Your task to perform on an android device: read, delete, or share a saved page in the chrome app Image 0: 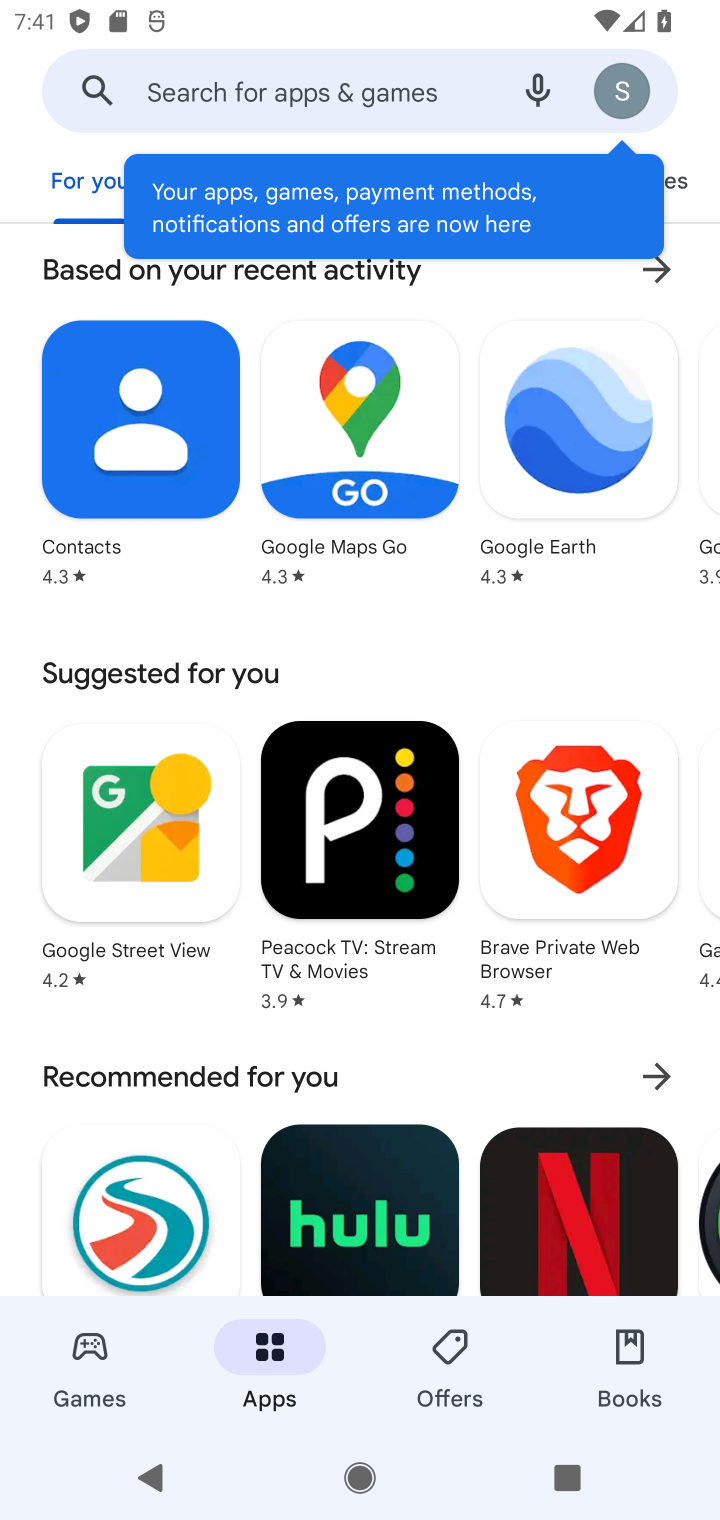
Step 0: press home button
Your task to perform on an android device: read, delete, or share a saved page in the chrome app Image 1: 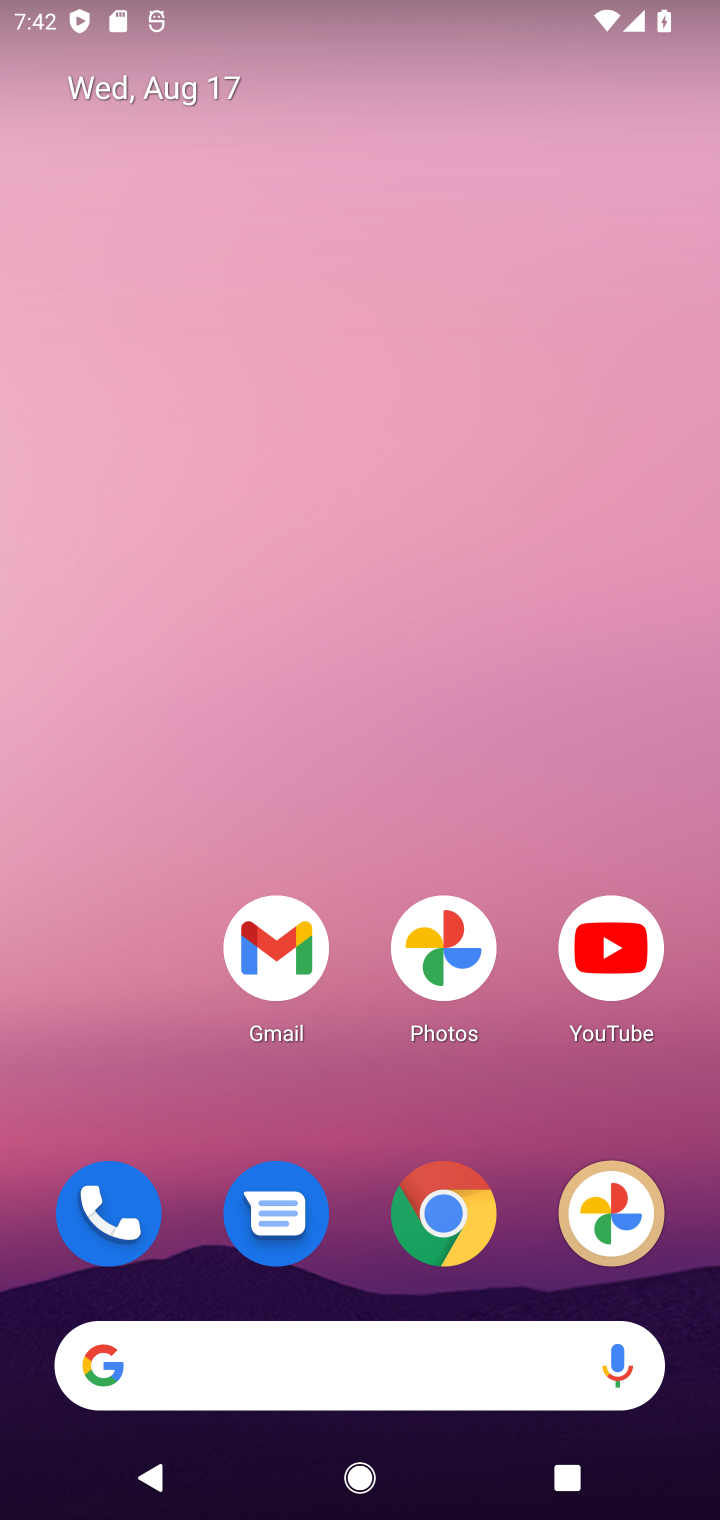
Step 1: click (445, 1261)
Your task to perform on an android device: read, delete, or share a saved page in the chrome app Image 2: 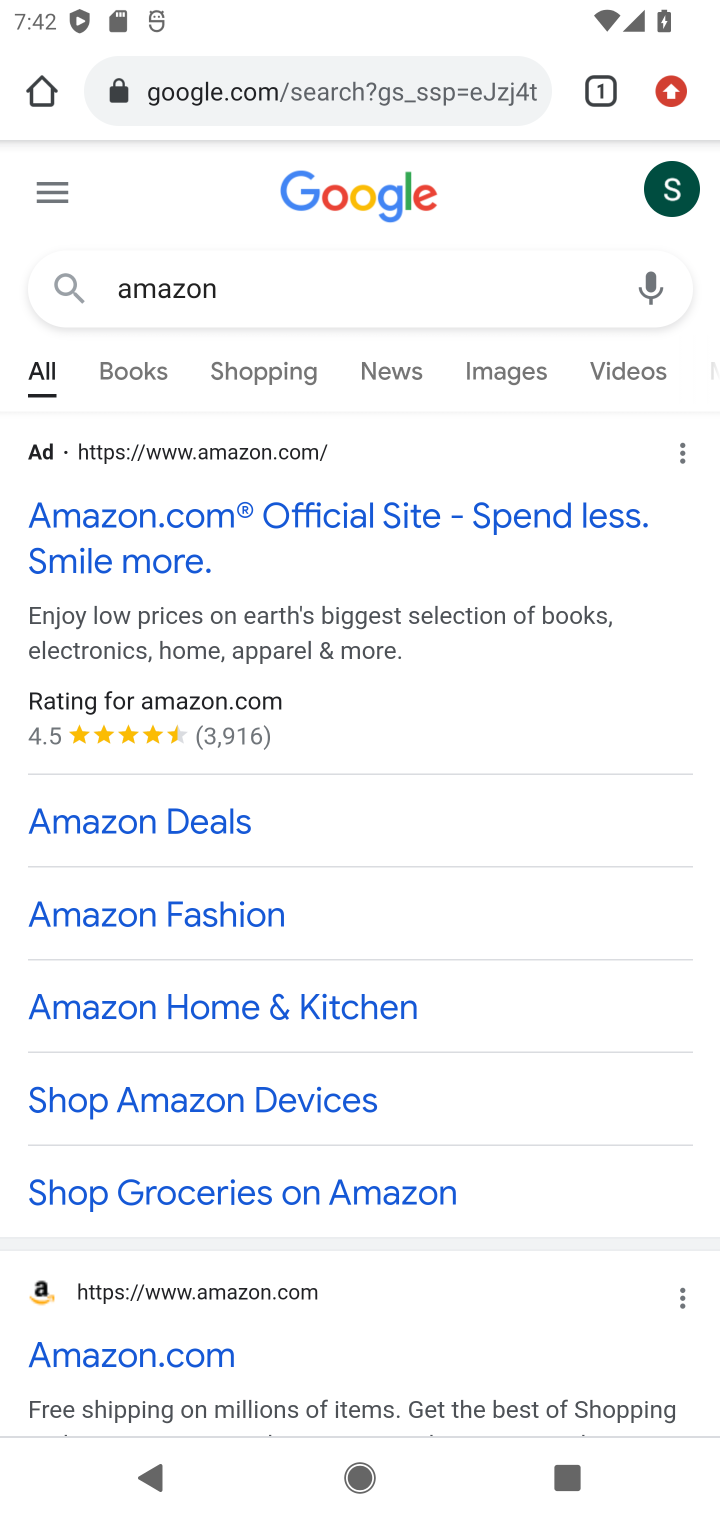
Step 2: click (653, 99)
Your task to perform on an android device: read, delete, or share a saved page in the chrome app Image 3: 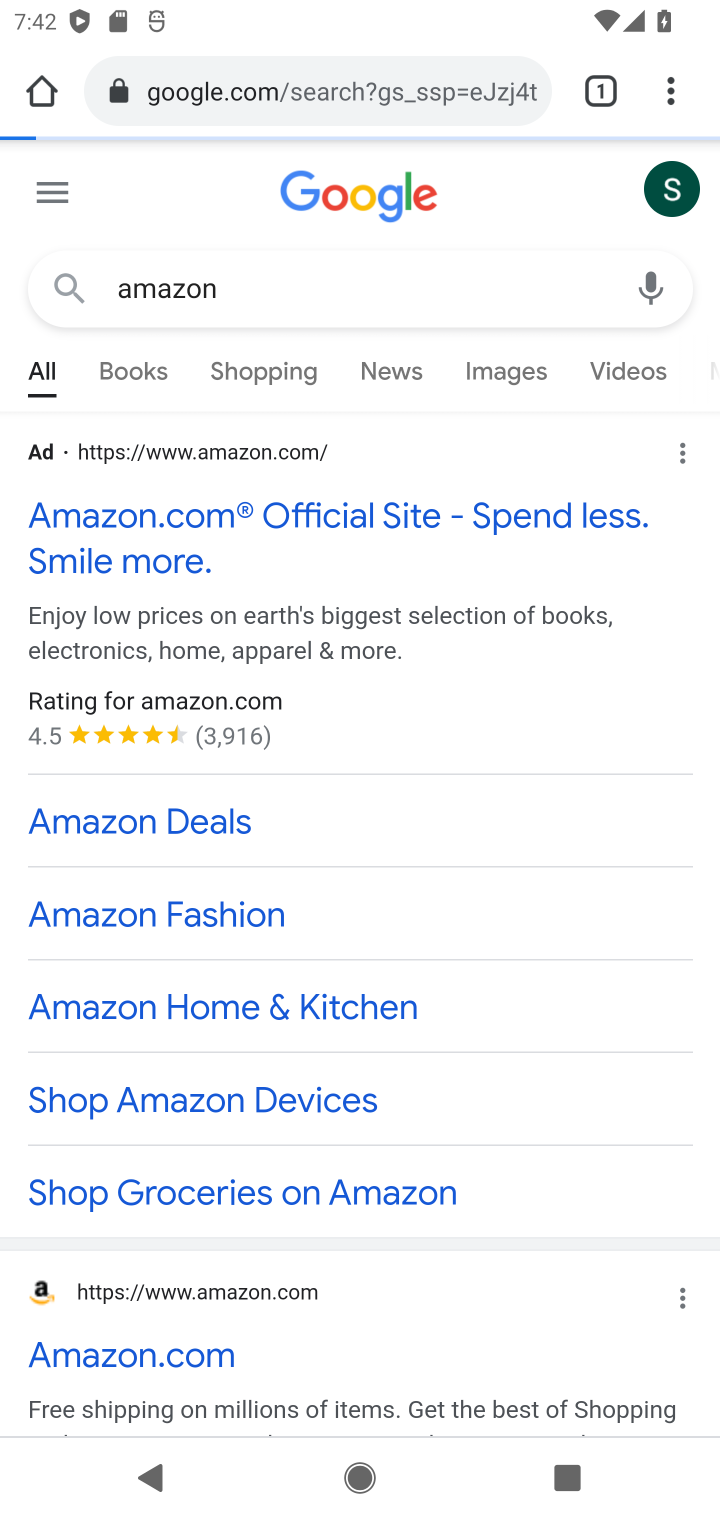
Step 3: click (666, 95)
Your task to perform on an android device: read, delete, or share a saved page in the chrome app Image 4: 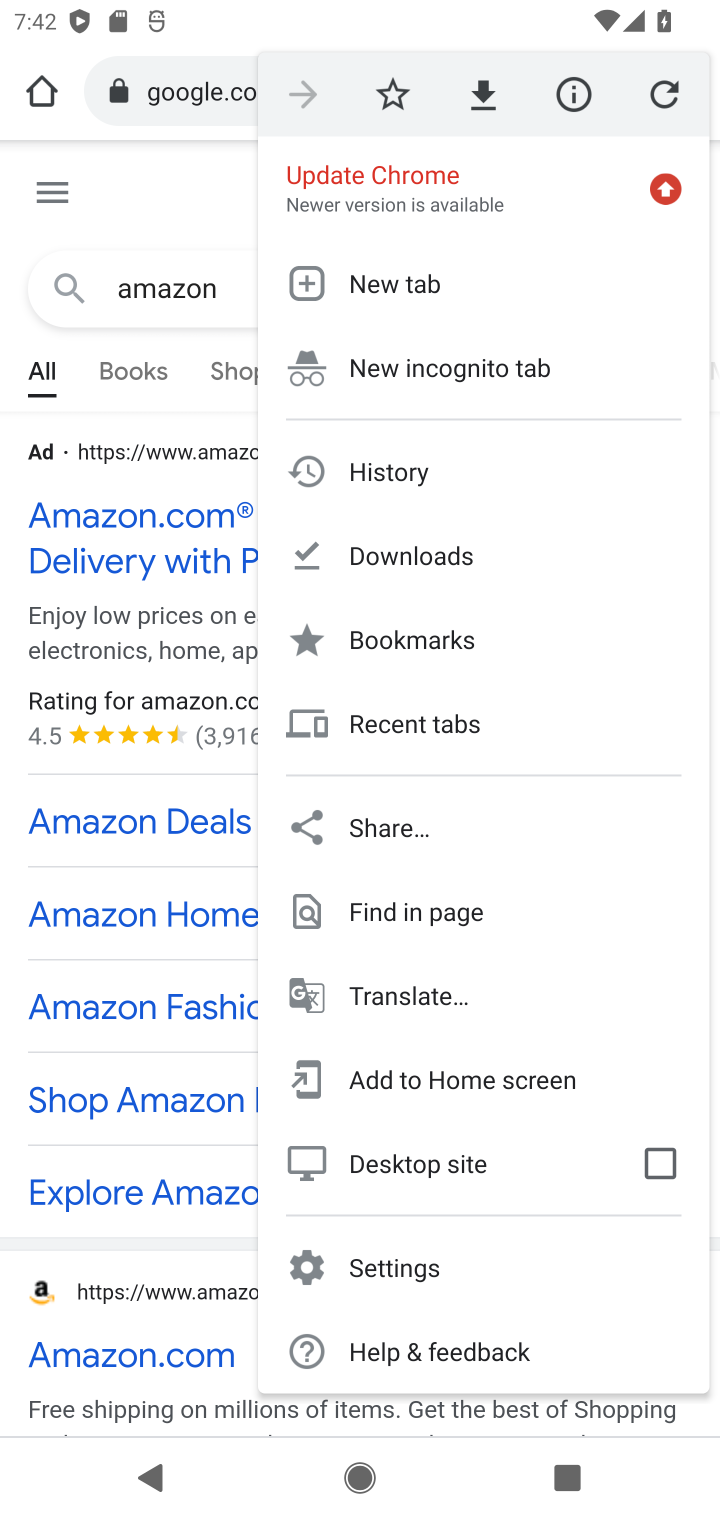
Step 4: click (368, 575)
Your task to perform on an android device: read, delete, or share a saved page in the chrome app Image 5: 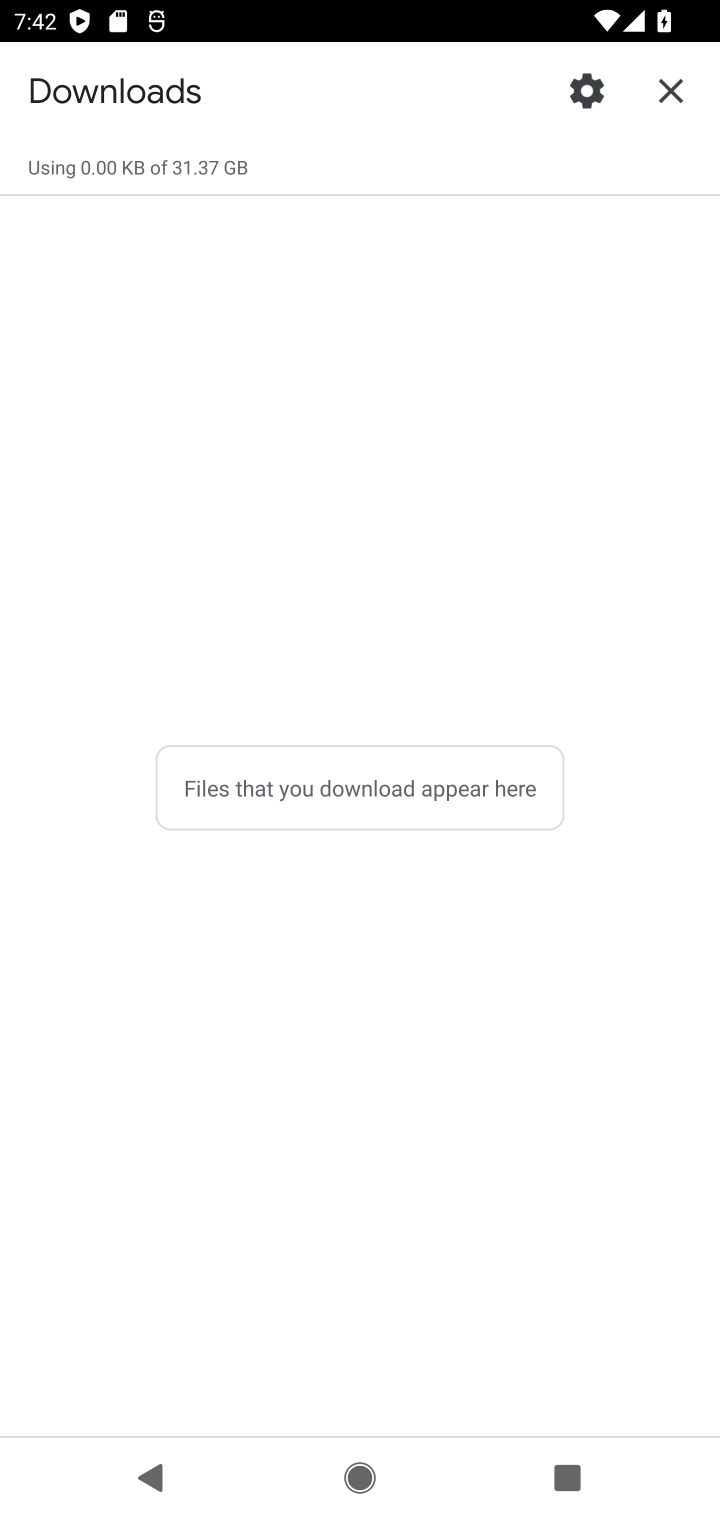
Step 5: task complete